Your task to perform on an android device: Do I have any events tomorrow? Image 0: 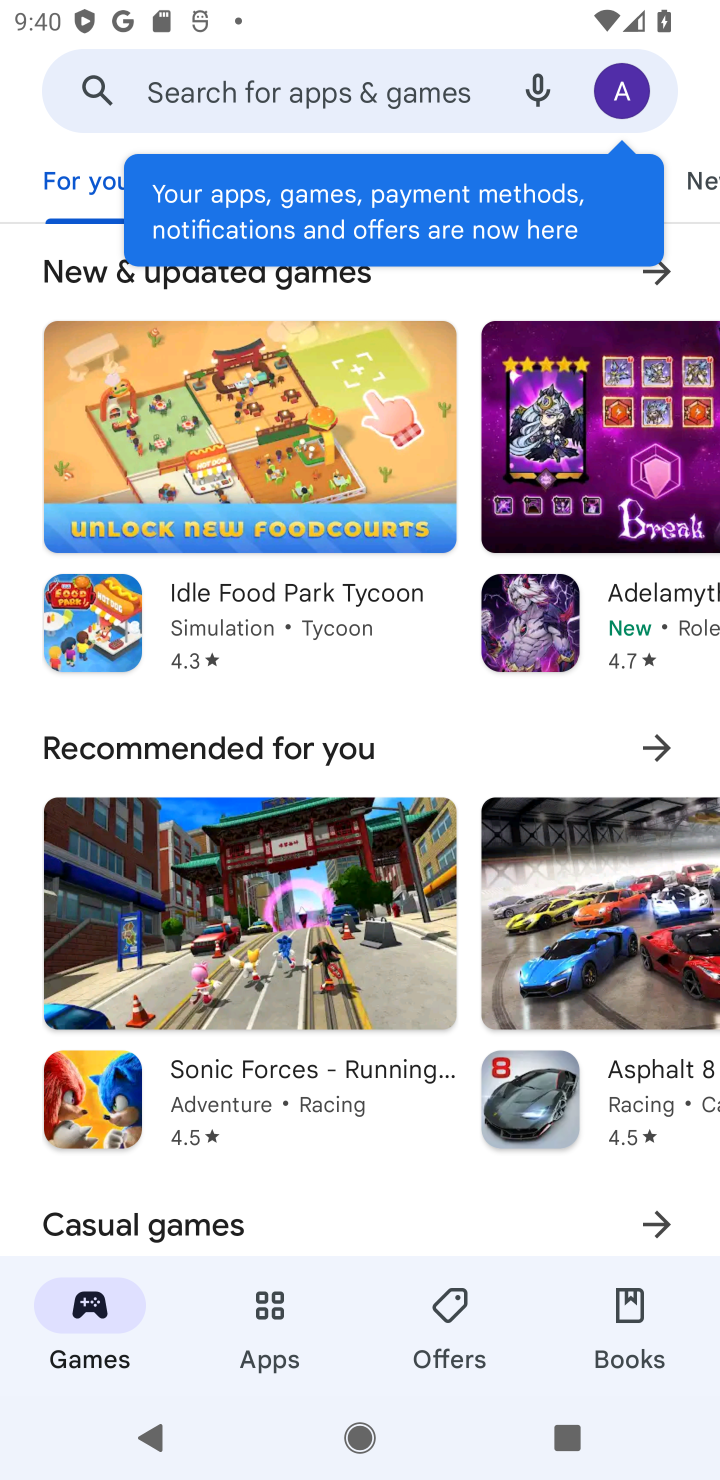
Step 0: press home button
Your task to perform on an android device: Do I have any events tomorrow? Image 1: 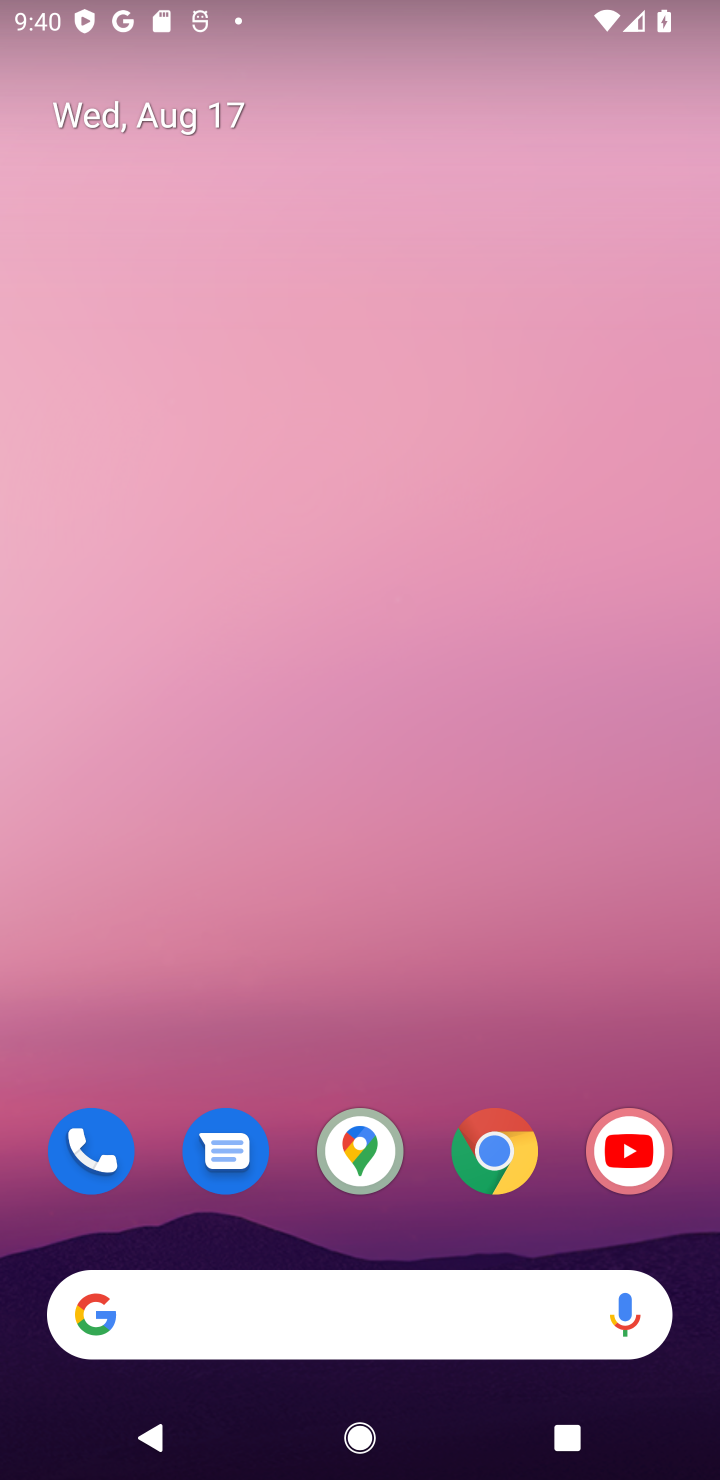
Step 1: drag from (329, 1214) to (184, 90)
Your task to perform on an android device: Do I have any events tomorrow? Image 2: 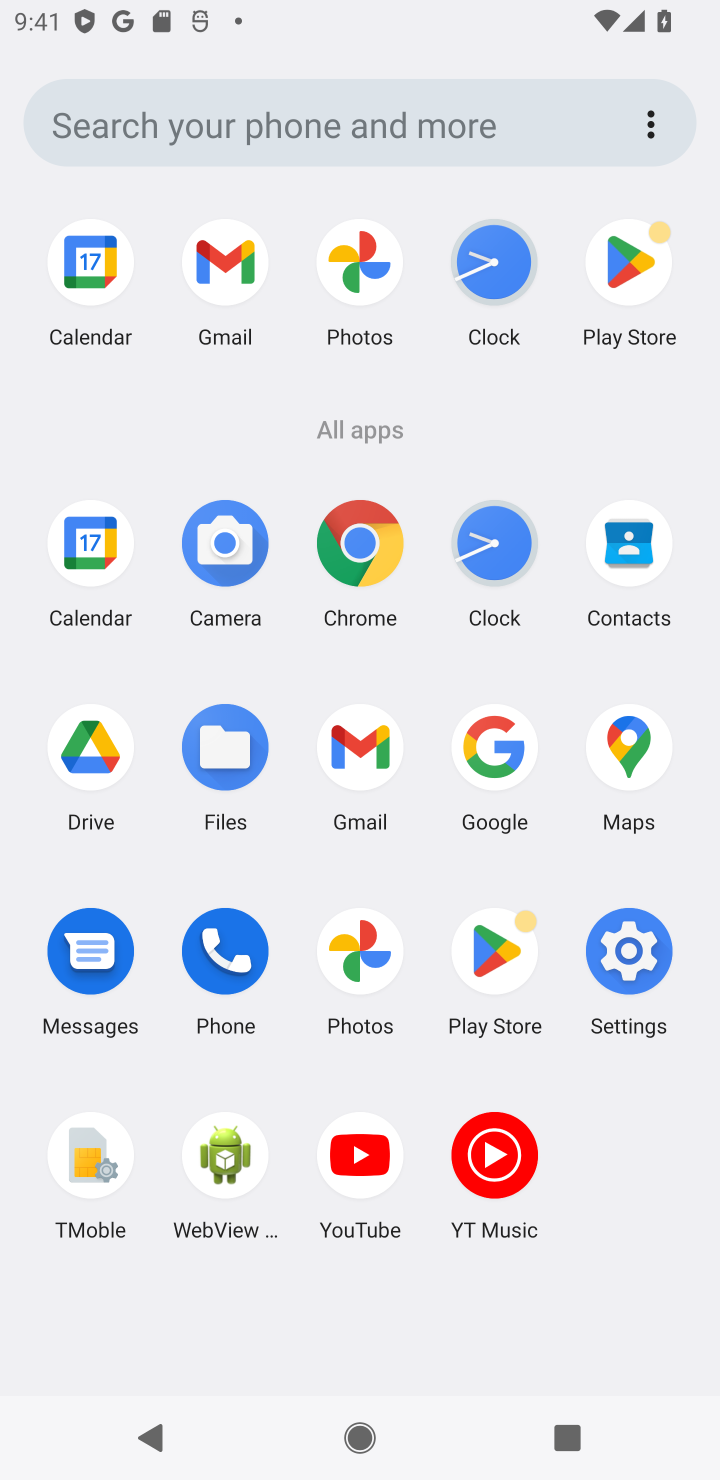
Step 2: click (91, 565)
Your task to perform on an android device: Do I have any events tomorrow? Image 3: 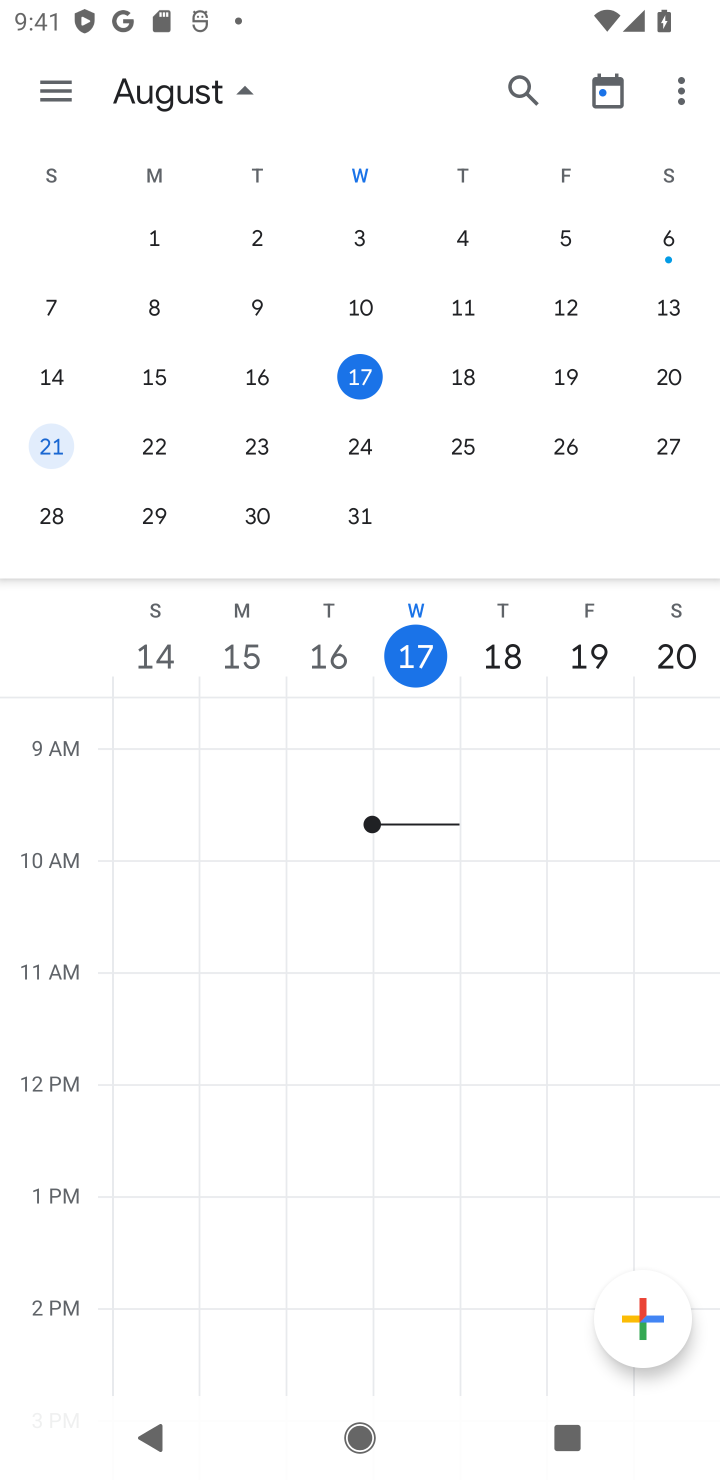
Step 3: task complete